Your task to perform on an android device: What's on my calendar tomorrow? Image 0: 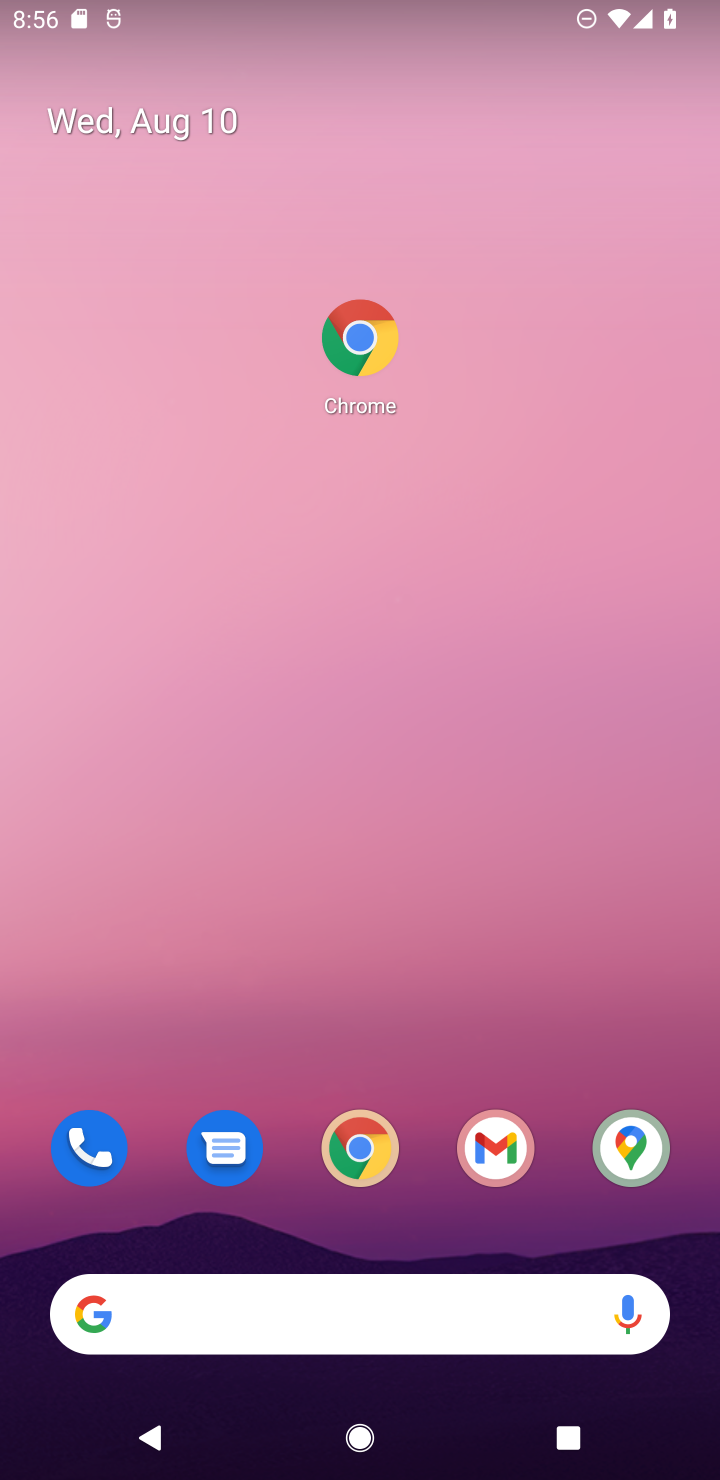
Step 0: drag from (192, 1060) to (175, 330)
Your task to perform on an android device: What's on my calendar tomorrow? Image 1: 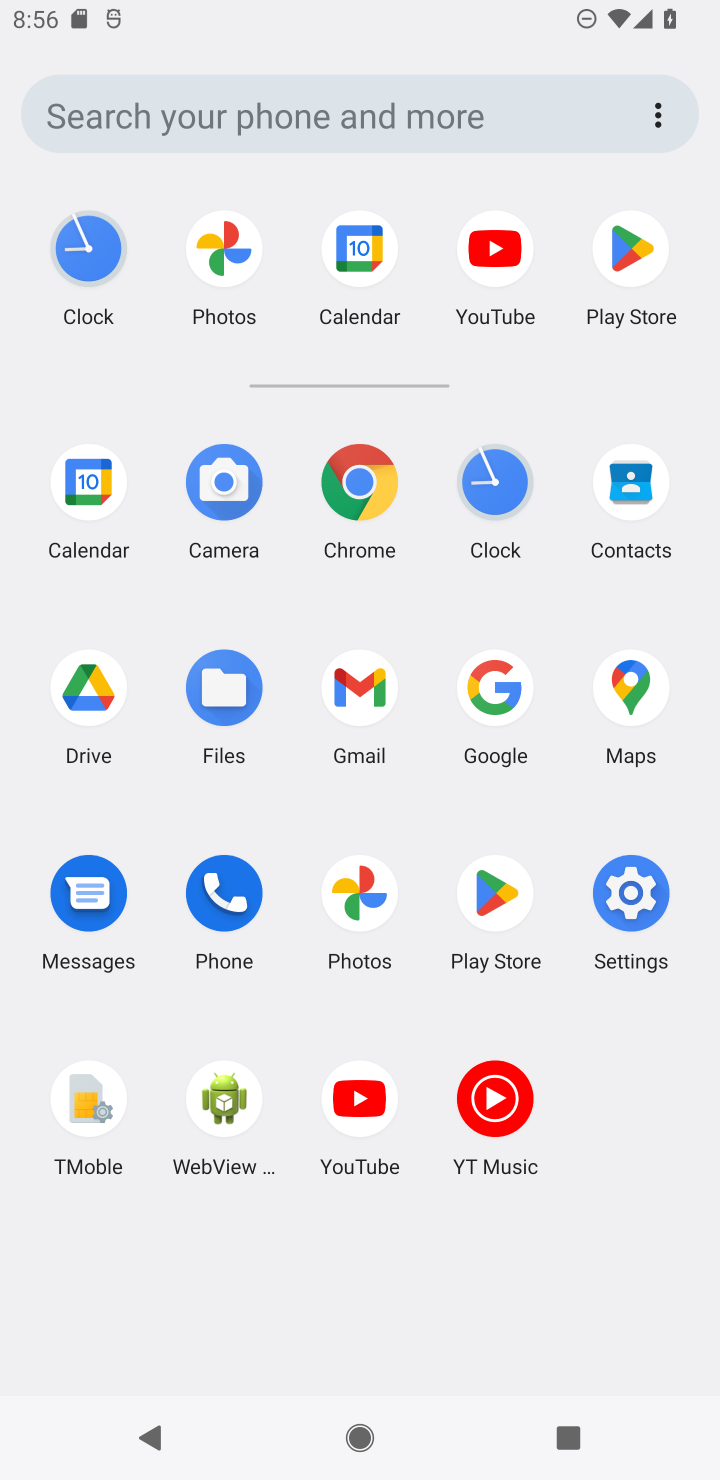
Step 1: click (68, 610)
Your task to perform on an android device: What's on my calendar tomorrow? Image 2: 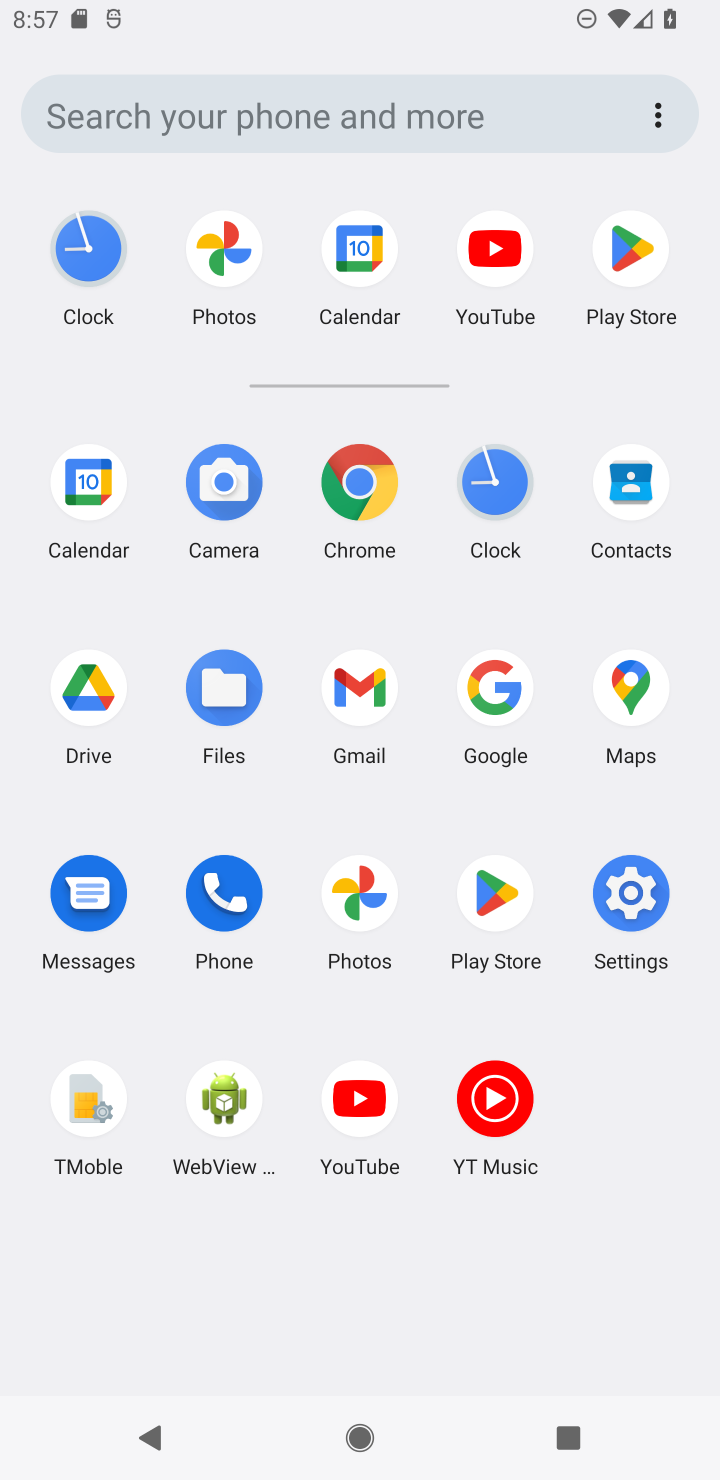
Step 2: click (97, 497)
Your task to perform on an android device: What's on my calendar tomorrow? Image 3: 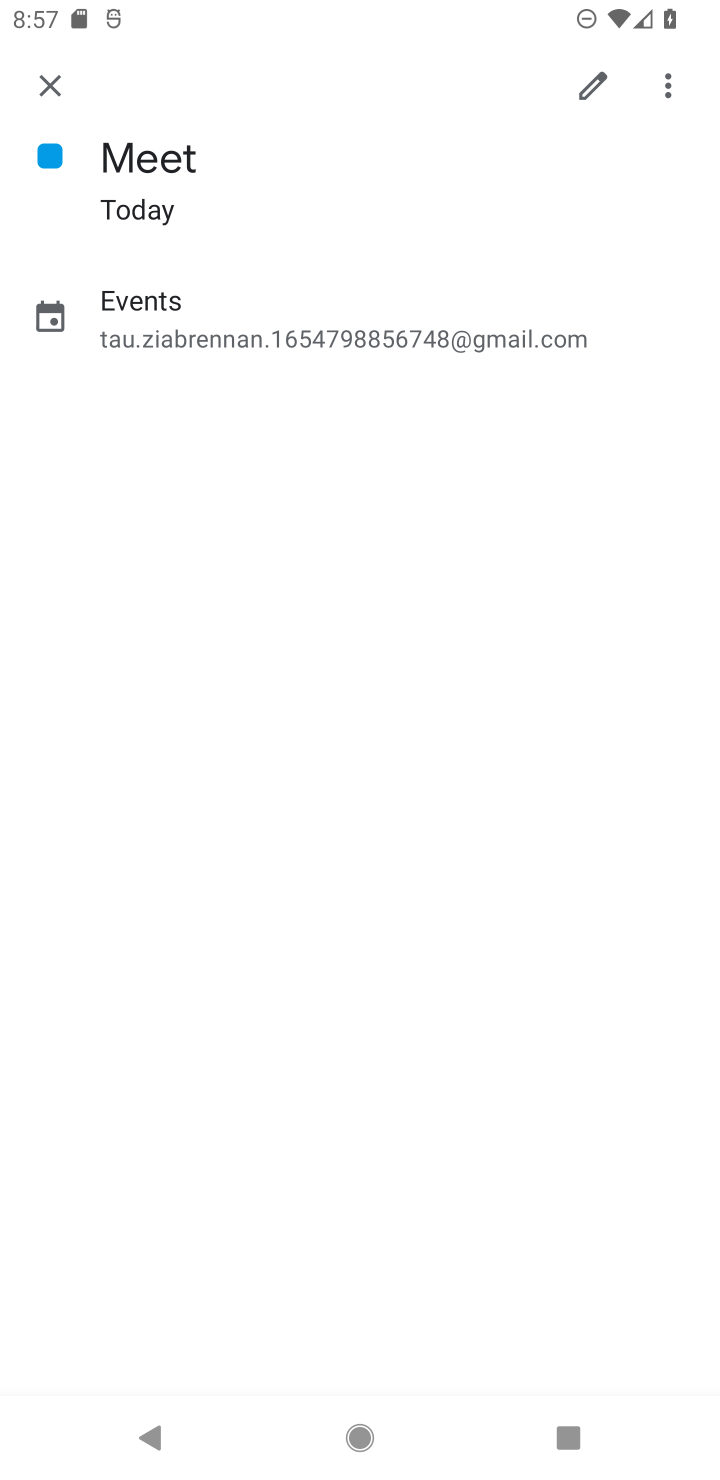
Step 3: click (76, 87)
Your task to perform on an android device: What's on my calendar tomorrow? Image 4: 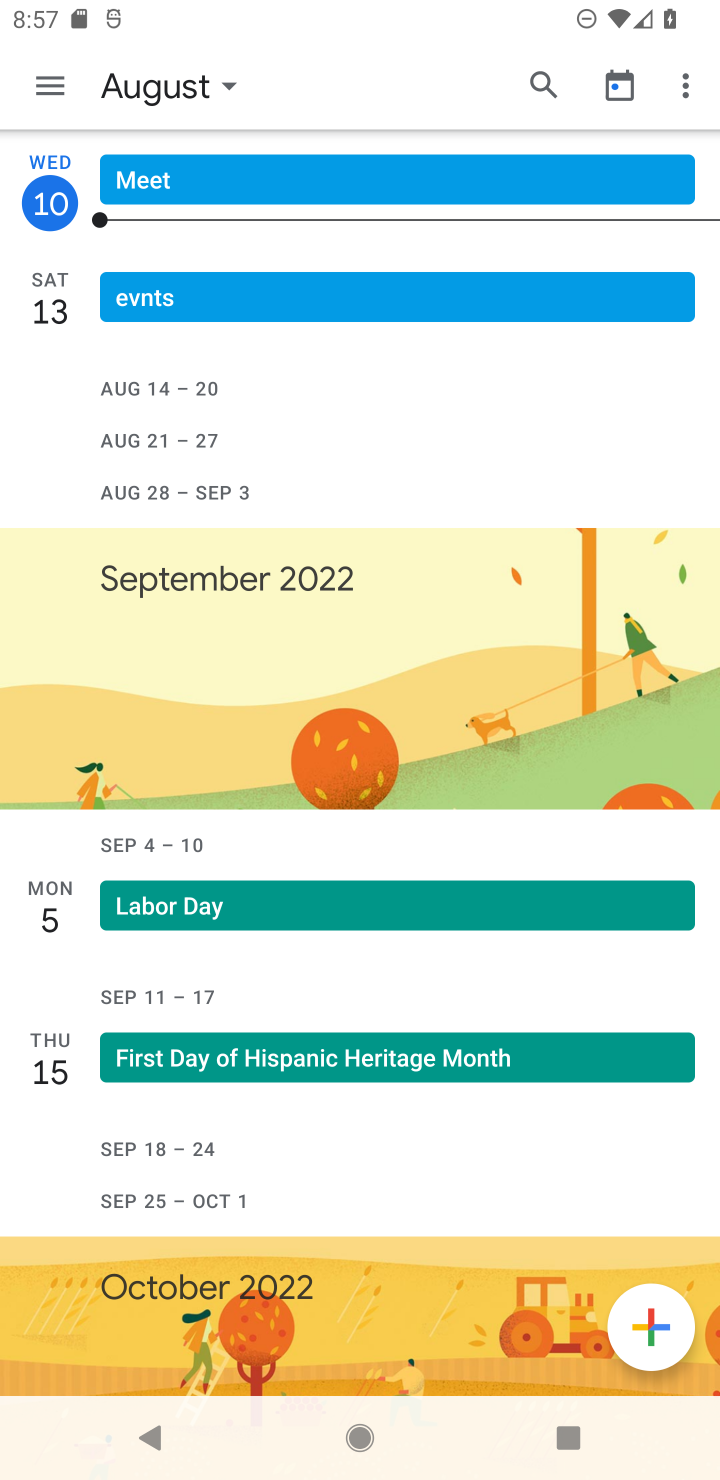
Step 4: click (40, 68)
Your task to perform on an android device: What's on my calendar tomorrow? Image 5: 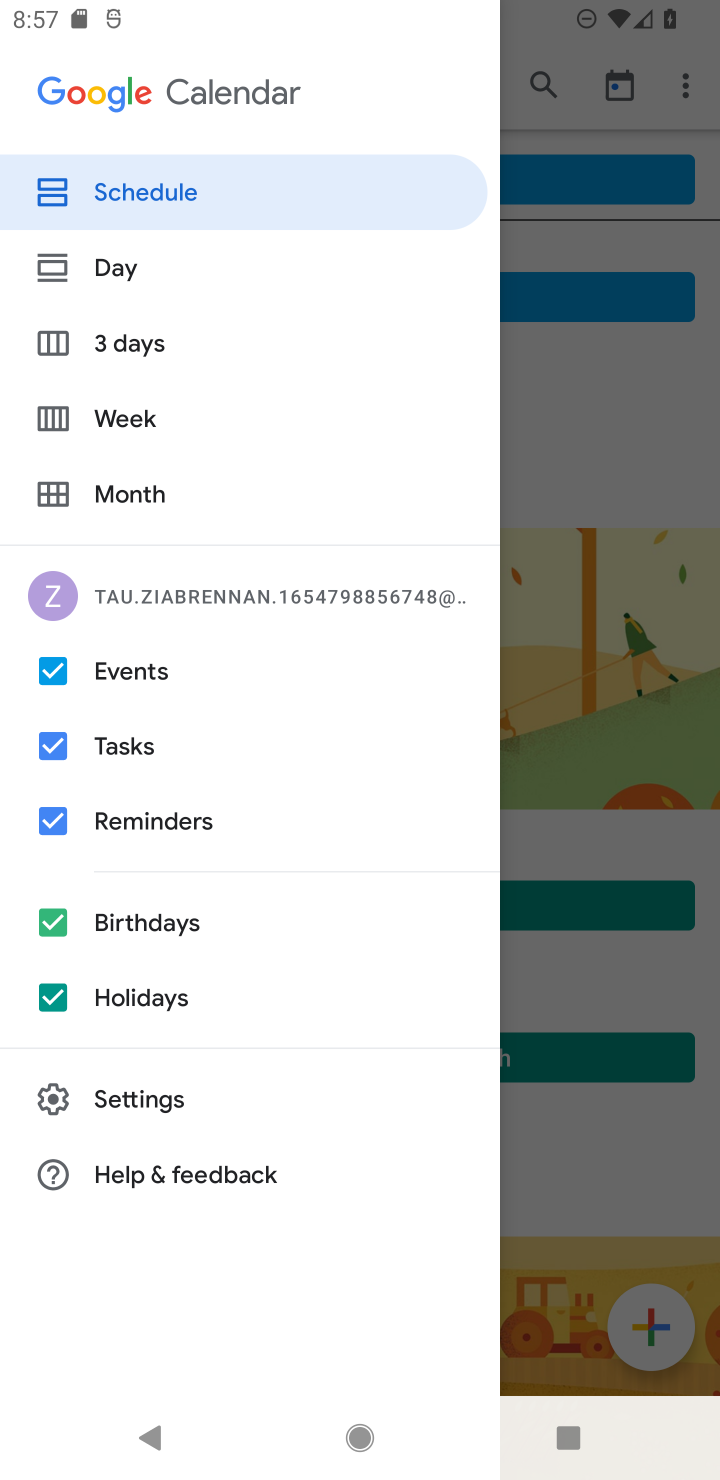
Step 5: click (111, 493)
Your task to perform on an android device: What's on my calendar tomorrow? Image 6: 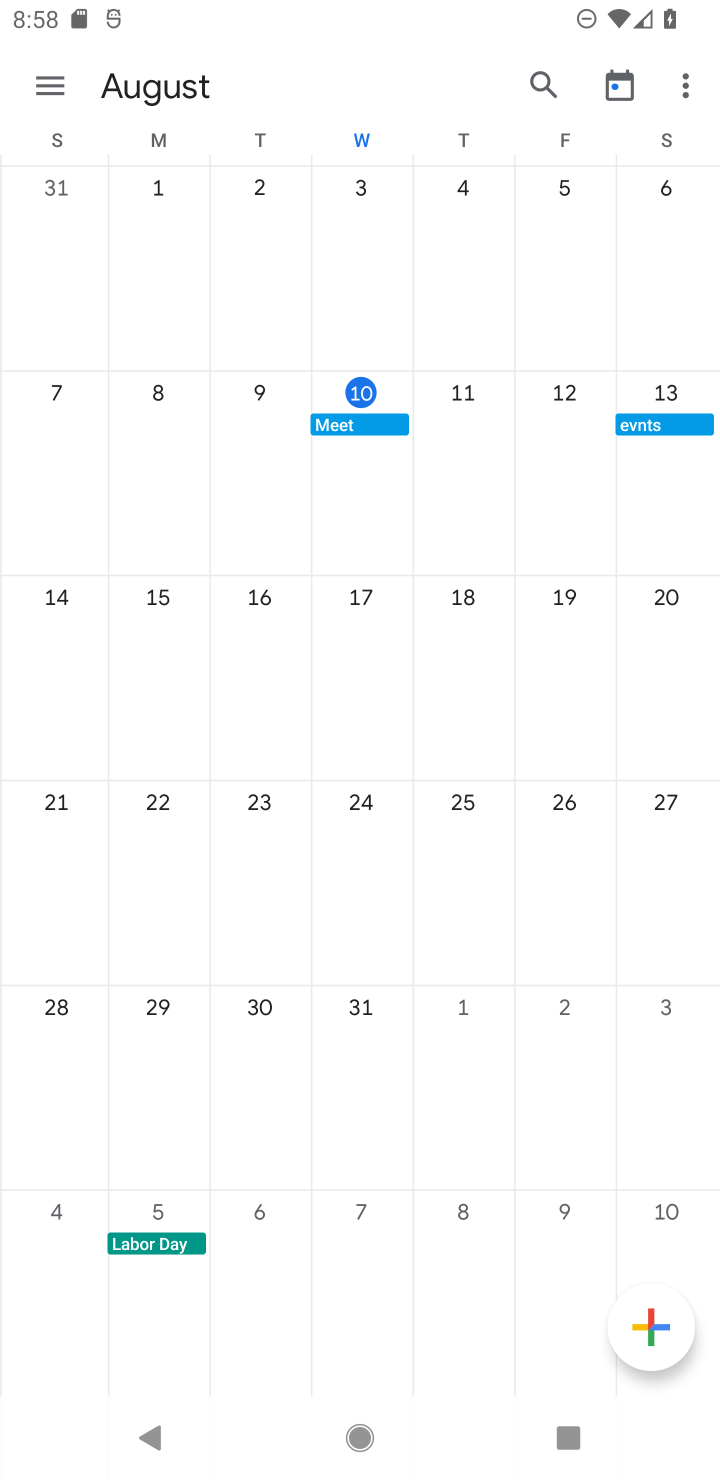
Step 6: click (444, 447)
Your task to perform on an android device: What's on my calendar tomorrow? Image 7: 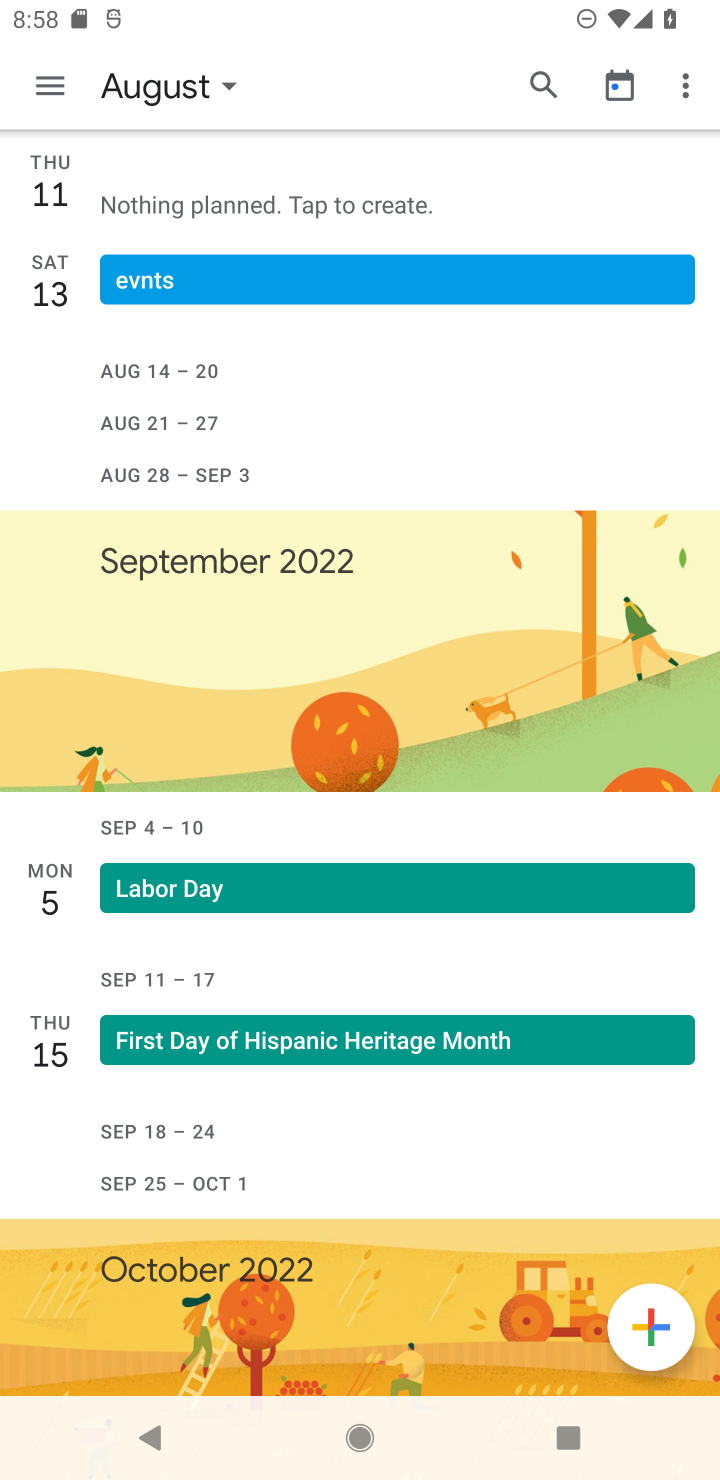
Step 7: task complete